Your task to perform on an android device: Turn on the flashlight Image 0: 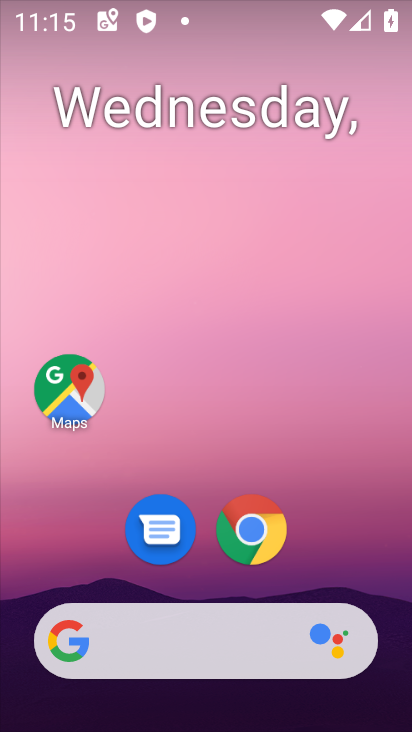
Step 0: drag from (207, 576) to (161, 86)
Your task to perform on an android device: Turn on the flashlight Image 1: 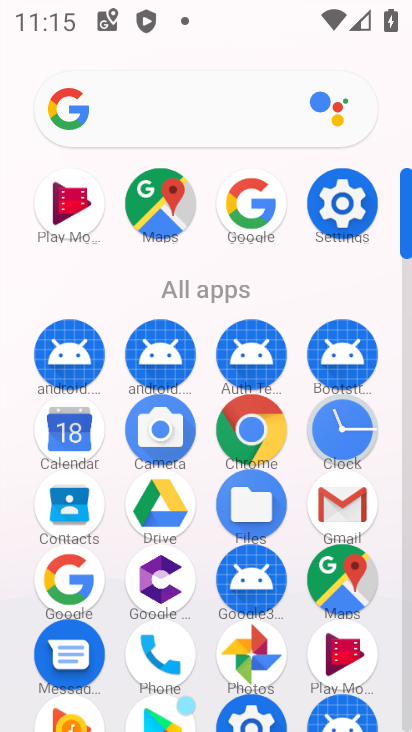
Step 1: click (351, 208)
Your task to perform on an android device: Turn on the flashlight Image 2: 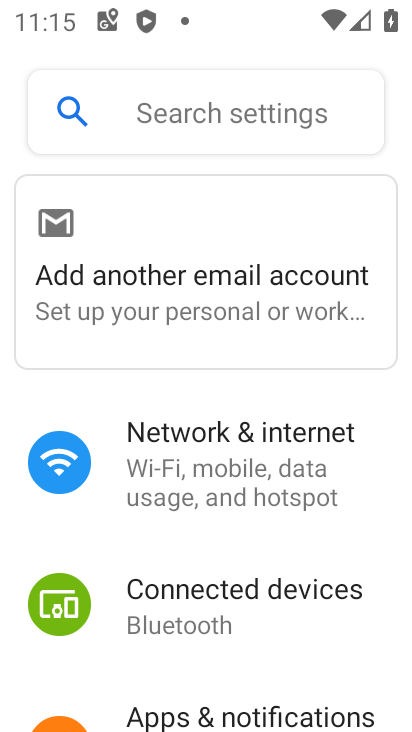
Step 2: task complete